Your task to perform on an android device: change the upload size in google photos Image 0: 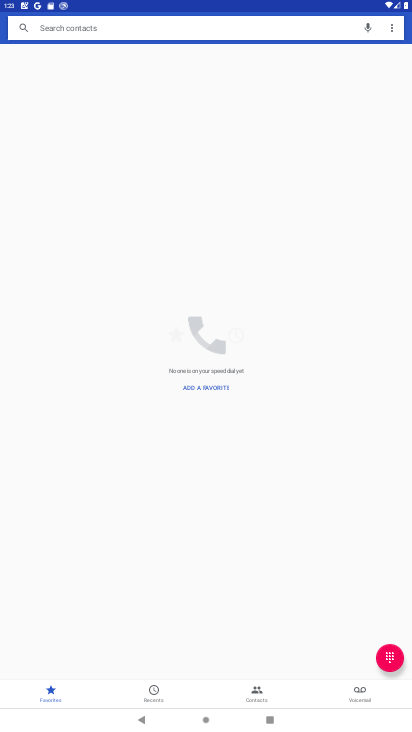
Step 0: press home button
Your task to perform on an android device: change the upload size in google photos Image 1: 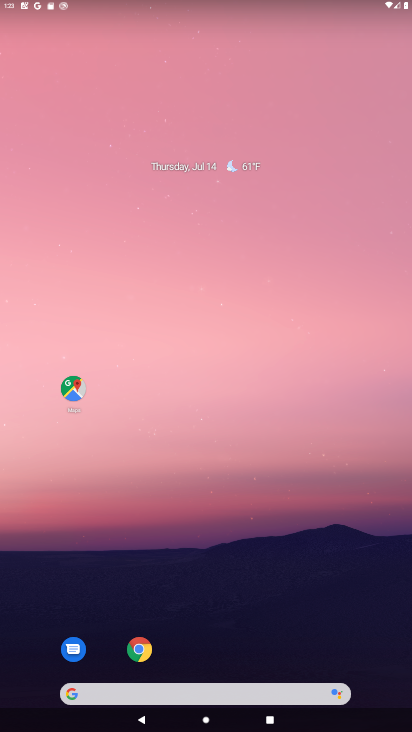
Step 1: drag from (201, 652) to (296, 16)
Your task to perform on an android device: change the upload size in google photos Image 2: 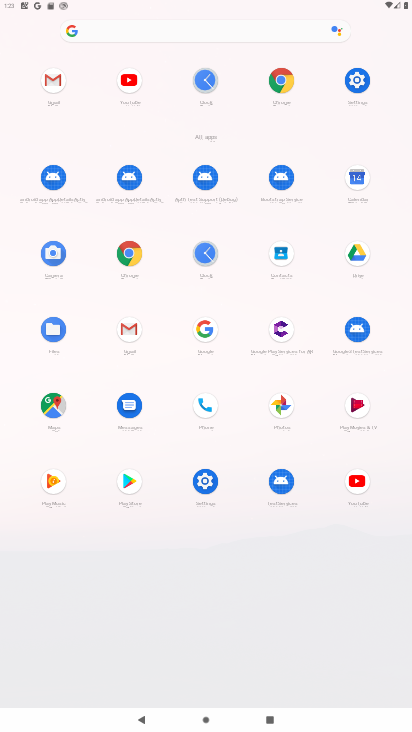
Step 2: click (284, 415)
Your task to perform on an android device: change the upload size in google photos Image 3: 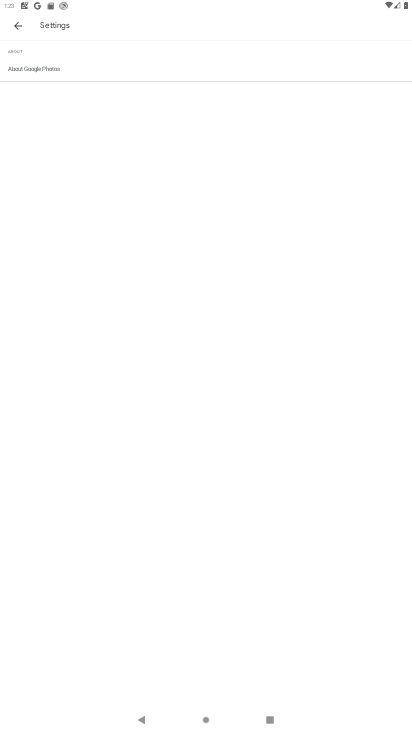
Step 3: press back button
Your task to perform on an android device: change the upload size in google photos Image 4: 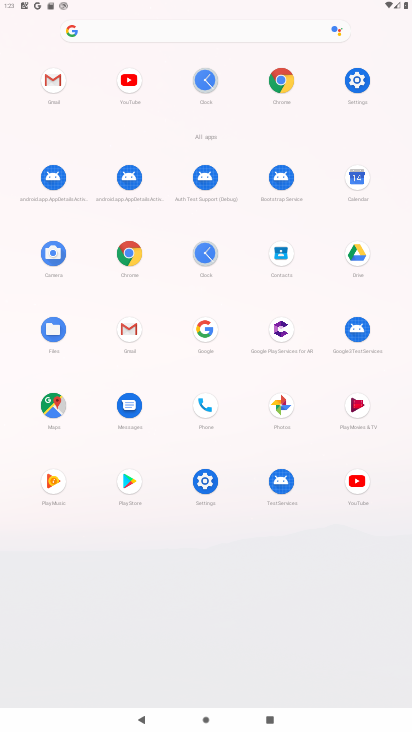
Step 4: click (287, 404)
Your task to perform on an android device: change the upload size in google photos Image 5: 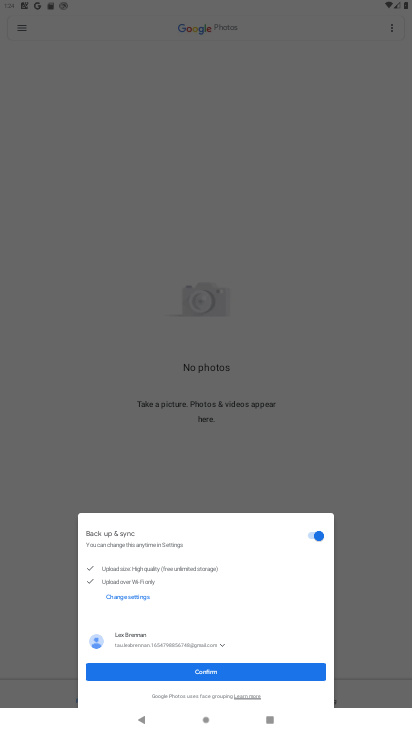
Step 5: click (236, 677)
Your task to perform on an android device: change the upload size in google photos Image 6: 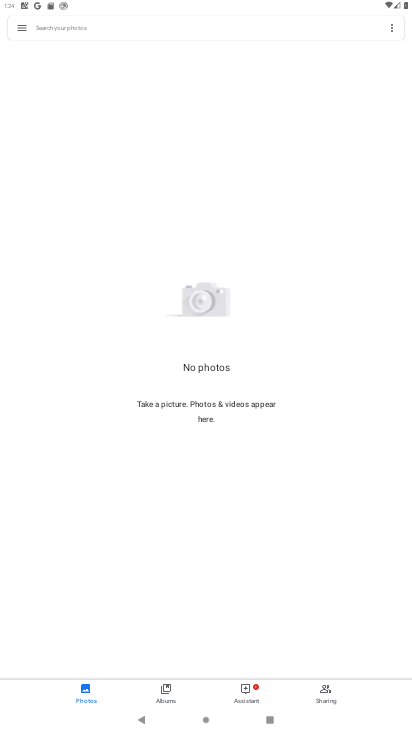
Step 6: click (28, 23)
Your task to perform on an android device: change the upload size in google photos Image 7: 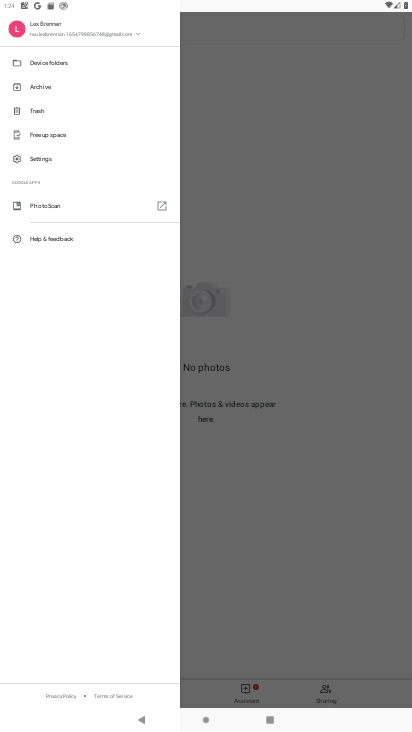
Step 7: click (49, 161)
Your task to perform on an android device: change the upload size in google photos Image 8: 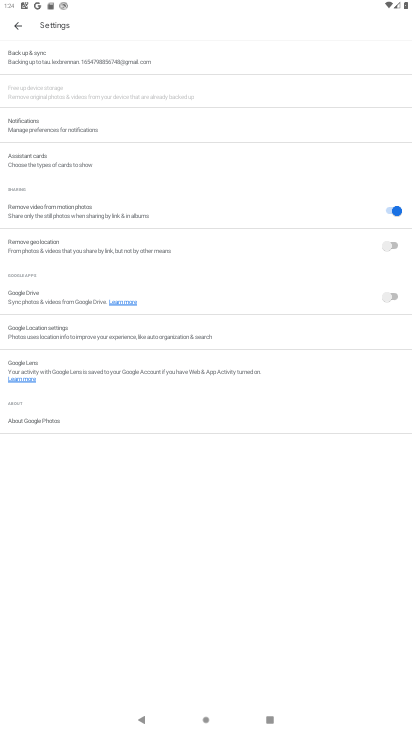
Step 8: click (63, 63)
Your task to perform on an android device: change the upload size in google photos Image 9: 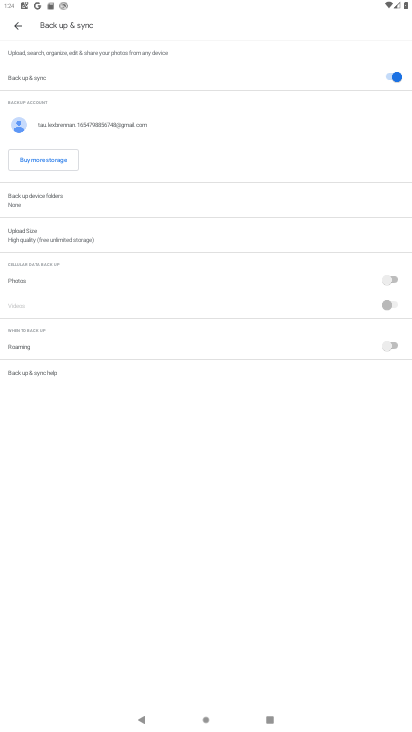
Step 9: click (65, 223)
Your task to perform on an android device: change the upload size in google photos Image 10: 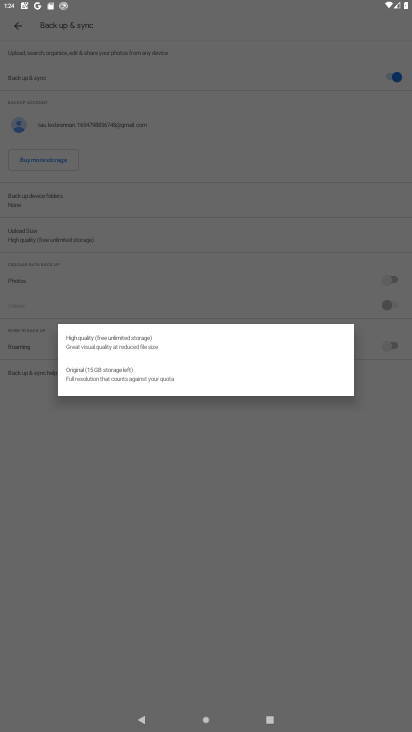
Step 10: click (171, 373)
Your task to perform on an android device: change the upload size in google photos Image 11: 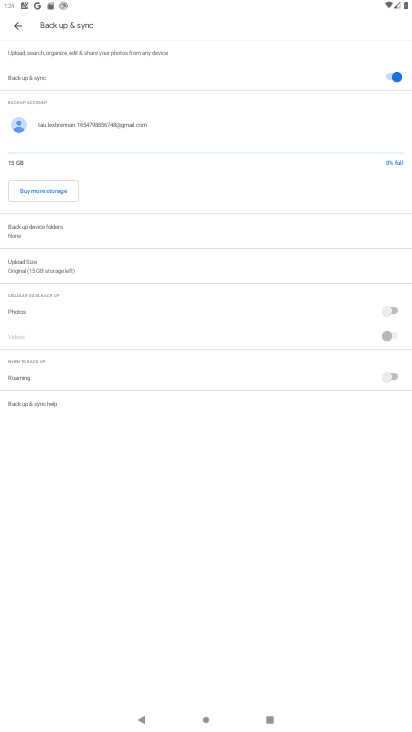
Step 11: task complete